Your task to perform on an android device: turn off data saver in the chrome app Image 0: 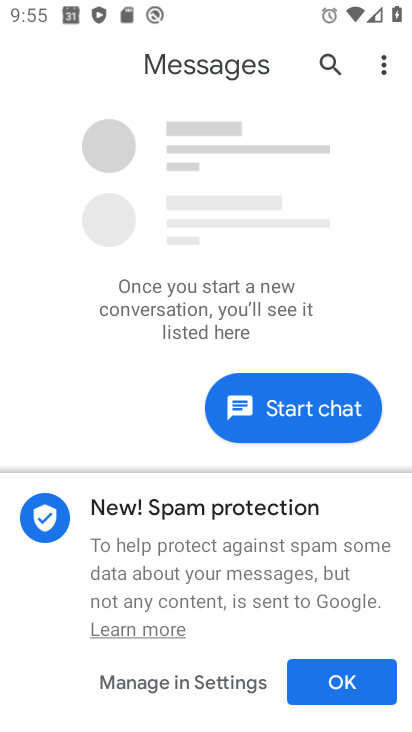
Step 0: press home button
Your task to perform on an android device: turn off data saver in the chrome app Image 1: 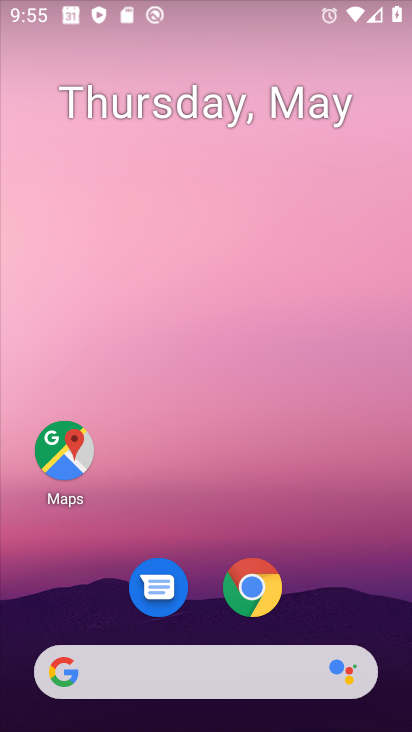
Step 1: drag from (381, 671) to (311, 98)
Your task to perform on an android device: turn off data saver in the chrome app Image 2: 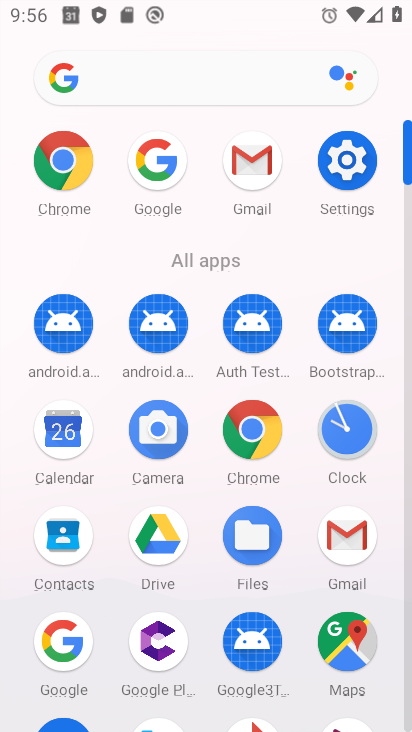
Step 2: click (246, 442)
Your task to perform on an android device: turn off data saver in the chrome app Image 3: 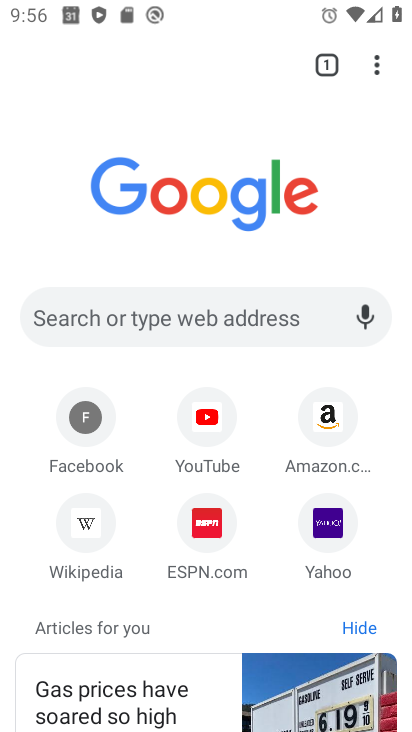
Step 3: click (369, 77)
Your task to perform on an android device: turn off data saver in the chrome app Image 4: 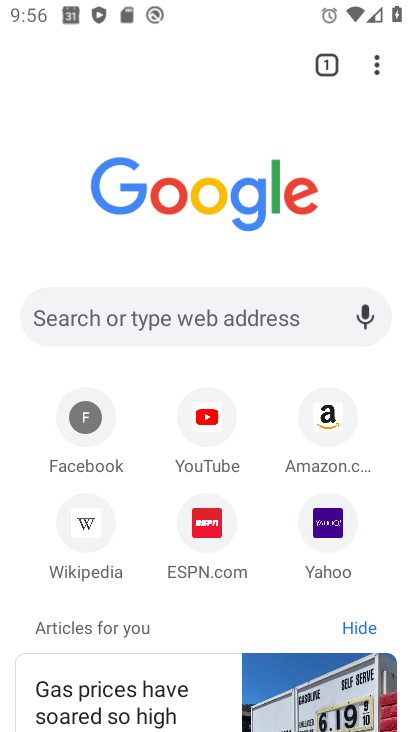
Step 4: click (375, 59)
Your task to perform on an android device: turn off data saver in the chrome app Image 5: 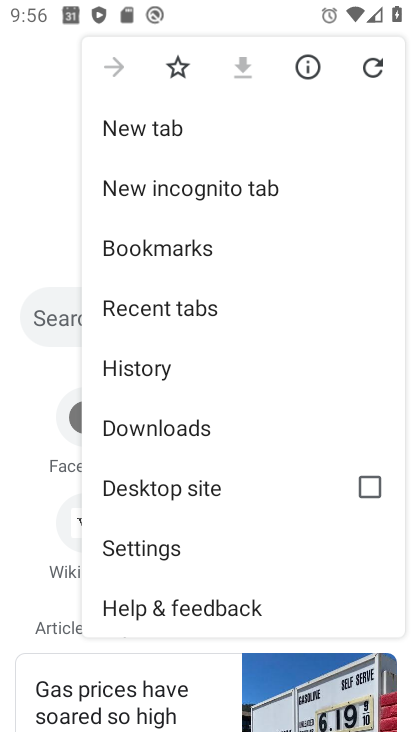
Step 5: click (150, 544)
Your task to perform on an android device: turn off data saver in the chrome app Image 6: 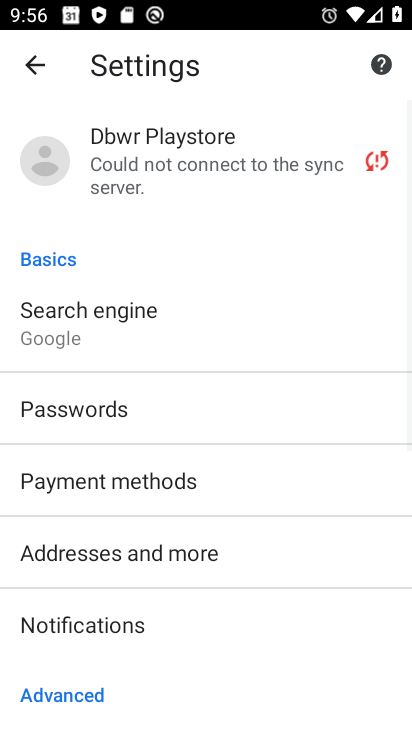
Step 6: drag from (58, 644) to (128, 201)
Your task to perform on an android device: turn off data saver in the chrome app Image 7: 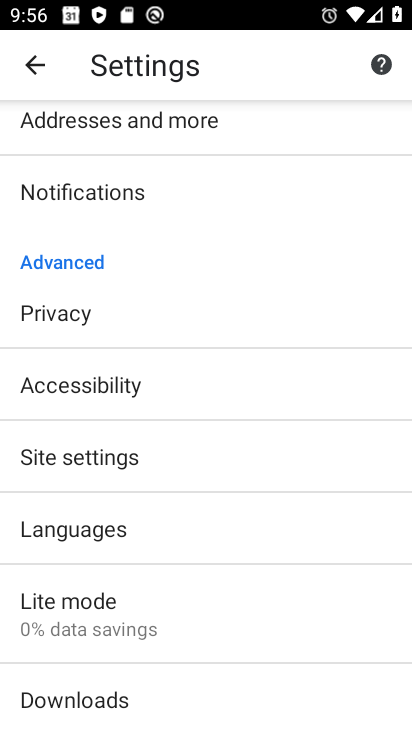
Step 7: click (127, 610)
Your task to perform on an android device: turn off data saver in the chrome app Image 8: 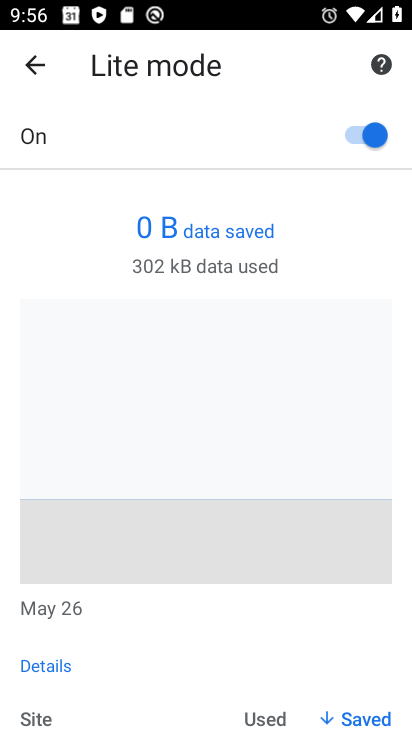
Step 8: click (351, 156)
Your task to perform on an android device: turn off data saver in the chrome app Image 9: 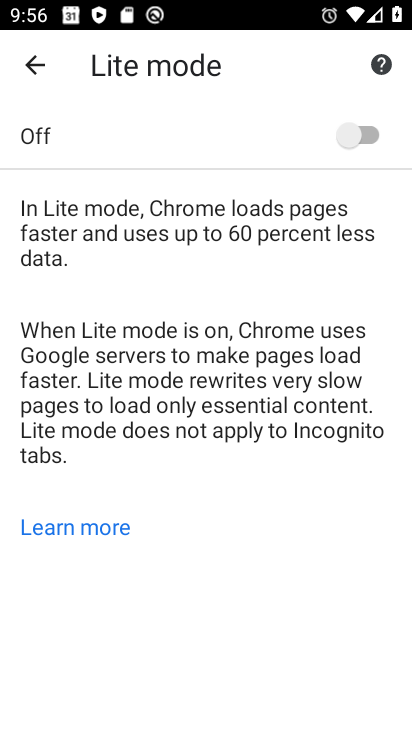
Step 9: task complete